Your task to perform on an android device: Open privacy settings Image 0: 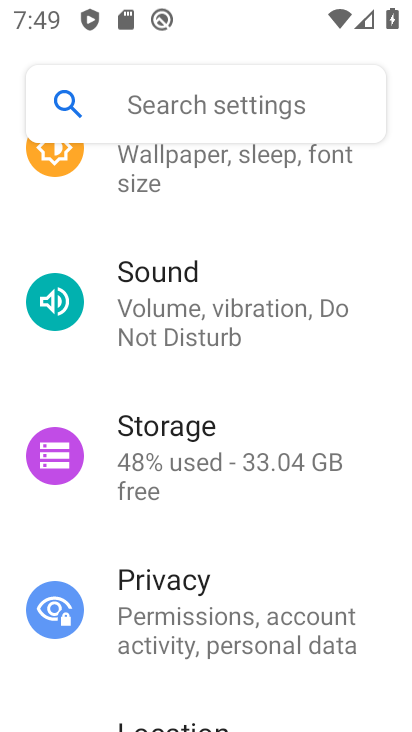
Step 0: click (181, 610)
Your task to perform on an android device: Open privacy settings Image 1: 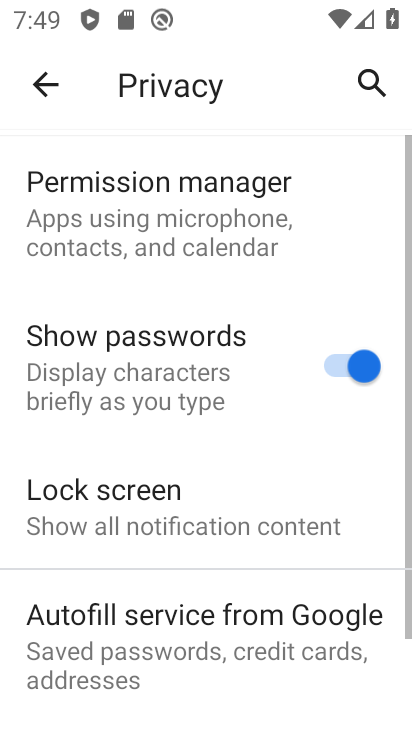
Step 1: drag from (181, 707) to (216, 265)
Your task to perform on an android device: Open privacy settings Image 2: 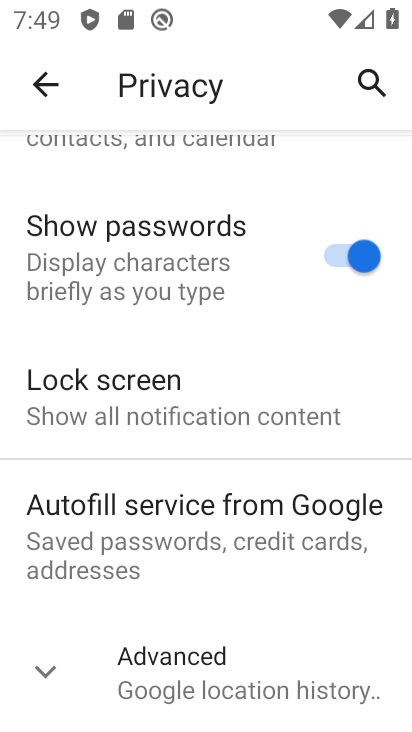
Step 2: click (164, 648)
Your task to perform on an android device: Open privacy settings Image 3: 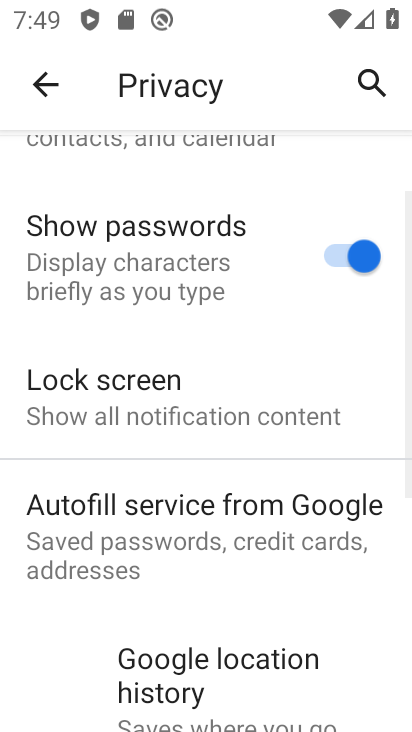
Step 3: task complete